Your task to perform on an android device: Search for Italian restaurants on Maps Image 0: 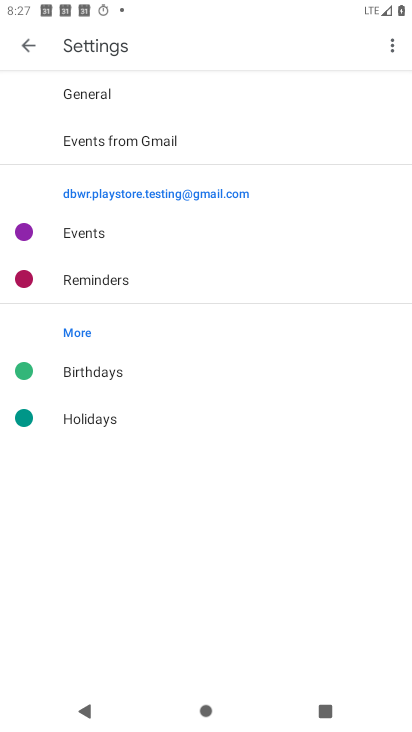
Step 0: press home button
Your task to perform on an android device: Search for Italian restaurants on Maps Image 1: 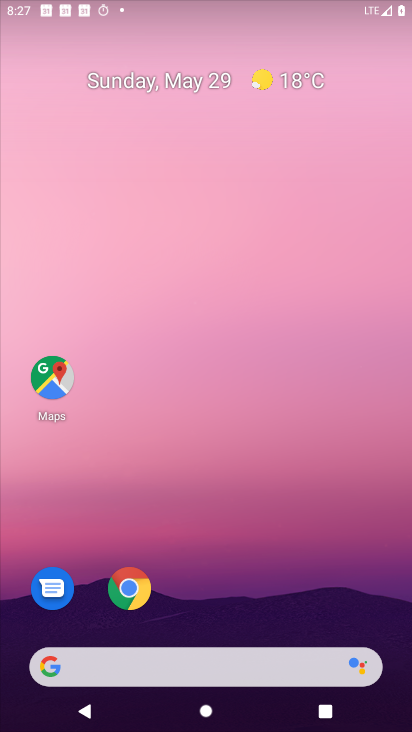
Step 1: drag from (176, 640) to (216, 241)
Your task to perform on an android device: Search for Italian restaurants on Maps Image 2: 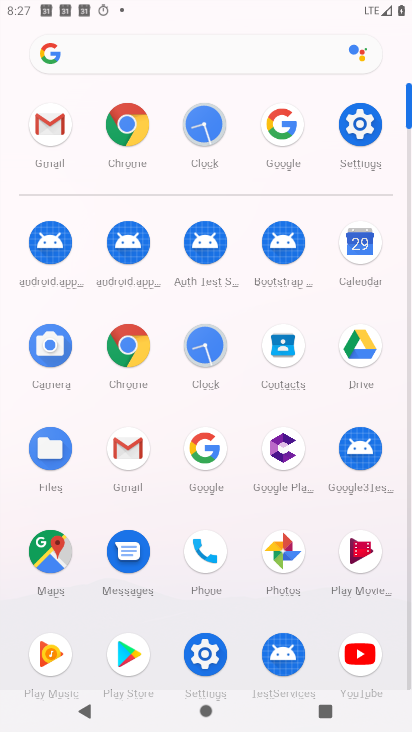
Step 2: click (52, 559)
Your task to perform on an android device: Search for Italian restaurants on Maps Image 3: 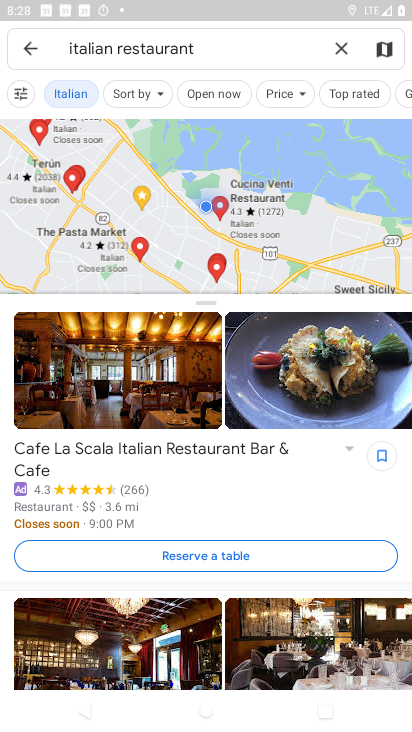
Step 3: task complete